Your task to perform on an android device: turn on data saver in the chrome app Image 0: 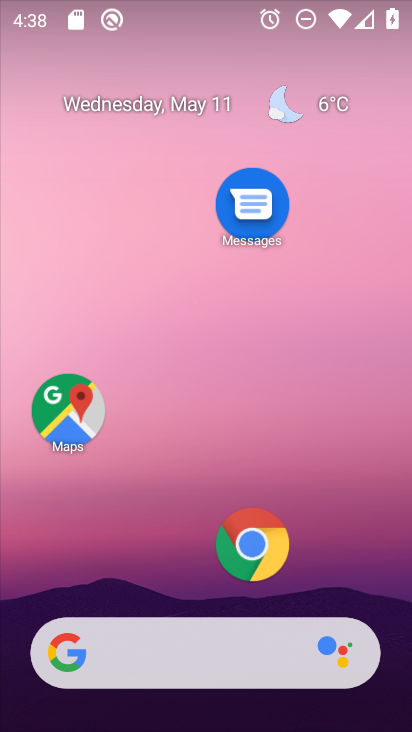
Step 0: click (265, 550)
Your task to perform on an android device: turn on data saver in the chrome app Image 1: 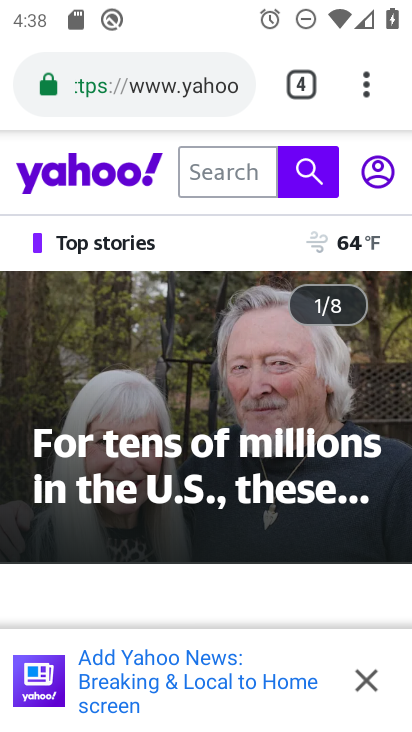
Step 1: drag from (371, 75) to (119, 591)
Your task to perform on an android device: turn on data saver in the chrome app Image 2: 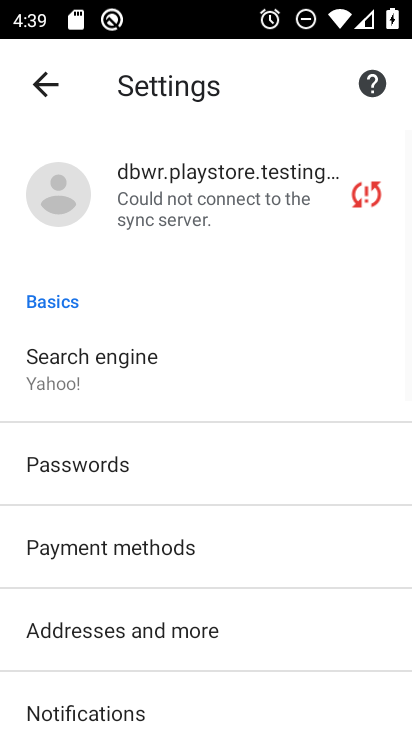
Step 2: drag from (116, 620) to (253, 225)
Your task to perform on an android device: turn on data saver in the chrome app Image 3: 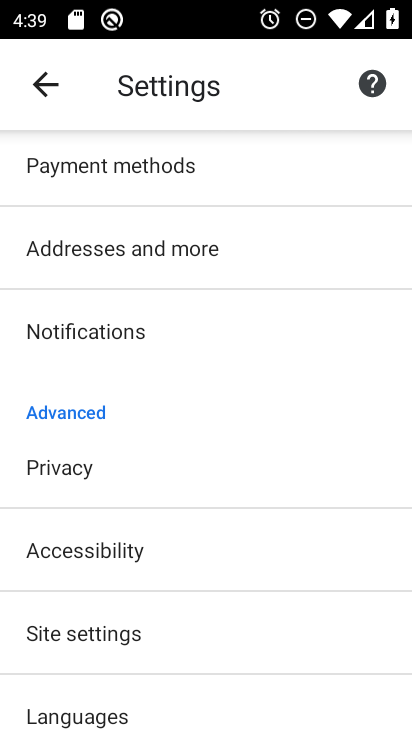
Step 3: drag from (137, 667) to (266, 345)
Your task to perform on an android device: turn on data saver in the chrome app Image 4: 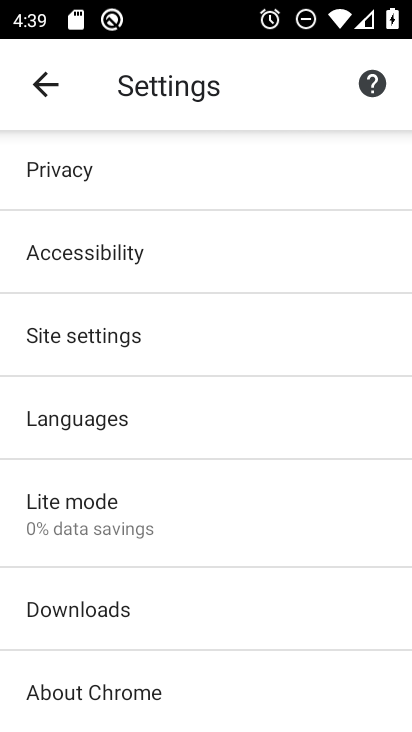
Step 4: click (104, 515)
Your task to perform on an android device: turn on data saver in the chrome app Image 5: 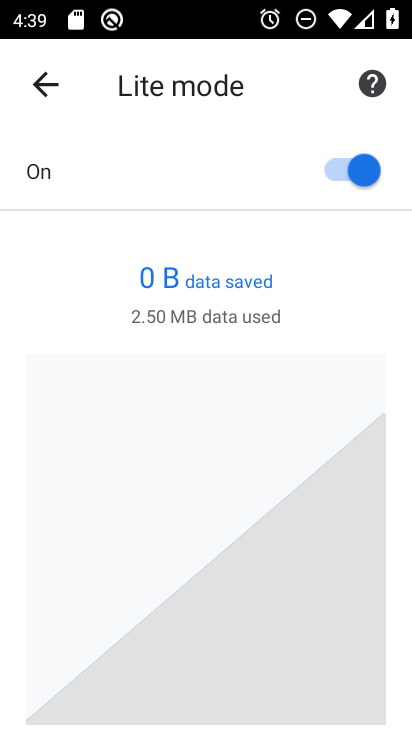
Step 5: task complete